Your task to perform on an android device: check google app version Image 0: 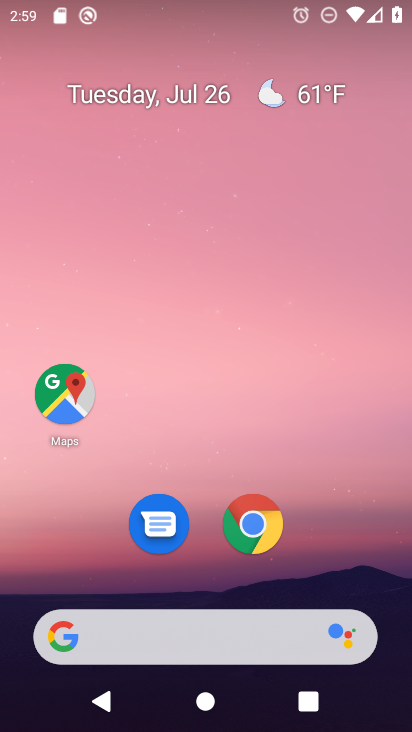
Step 0: press home button
Your task to perform on an android device: check google app version Image 1: 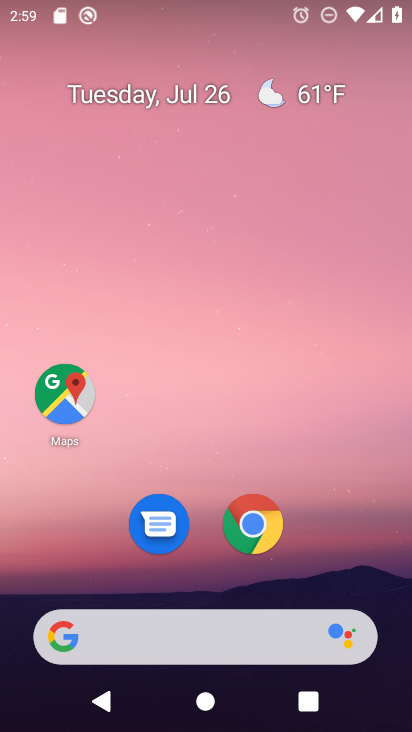
Step 1: drag from (205, 623) to (351, 113)
Your task to perform on an android device: check google app version Image 2: 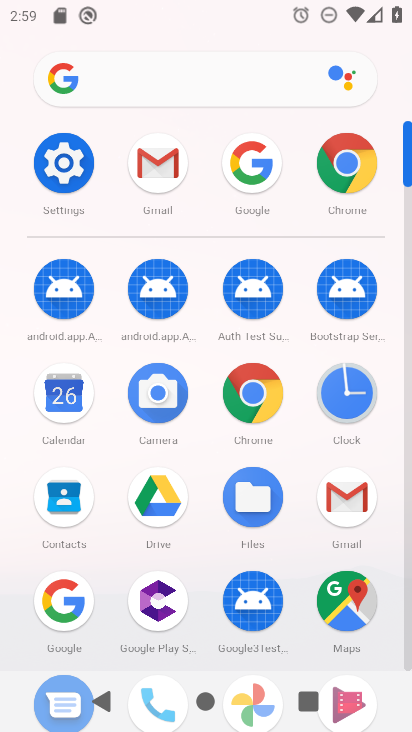
Step 2: drag from (68, 599) to (239, 381)
Your task to perform on an android device: check google app version Image 3: 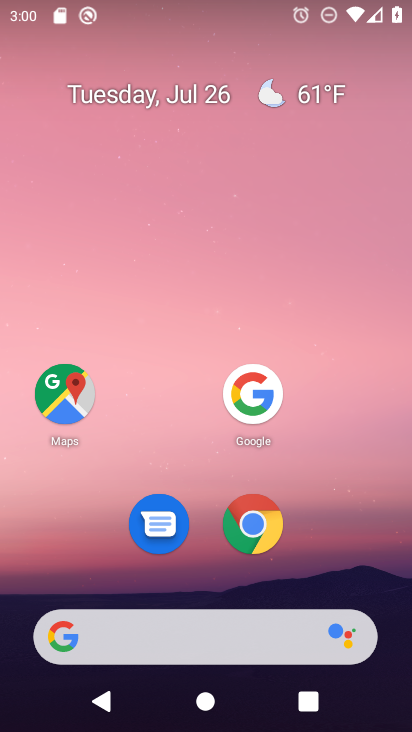
Step 3: drag from (259, 390) to (241, 348)
Your task to perform on an android device: check google app version Image 4: 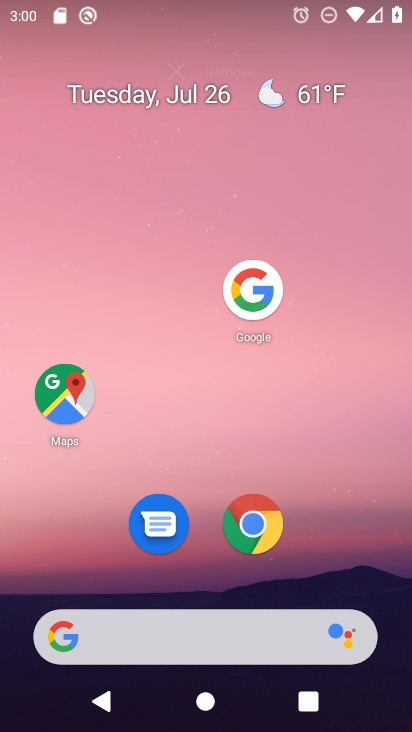
Step 4: click (190, 181)
Your task to perform on an android device: check google app version Image 5: 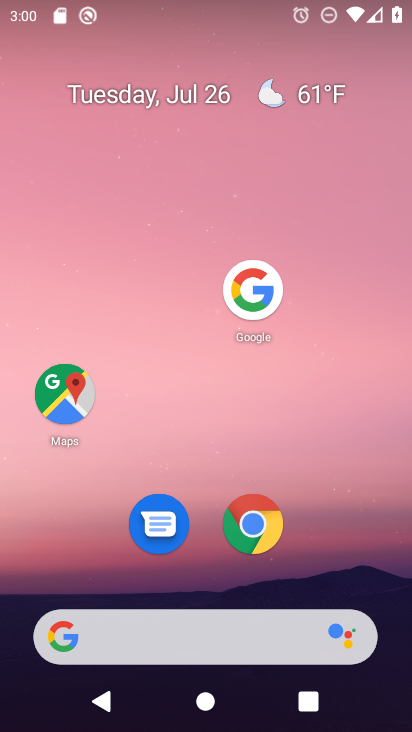
Step 5: click (256, 289)
Your task to perform on an android device: check google app version Image 6: 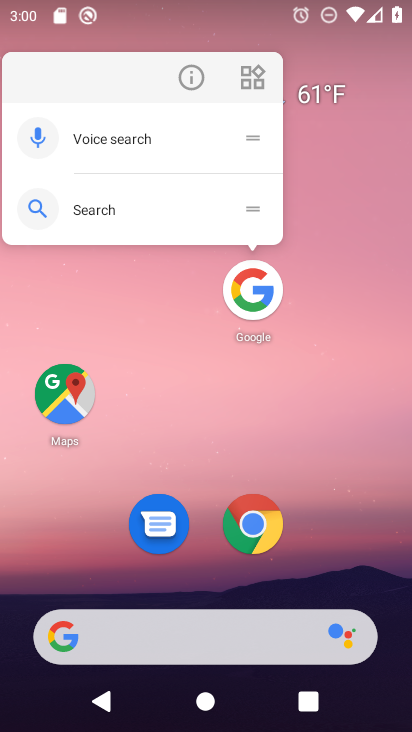
Step 6: click (193, 83)
Your task to perform on an android device: check google app version Image 7: 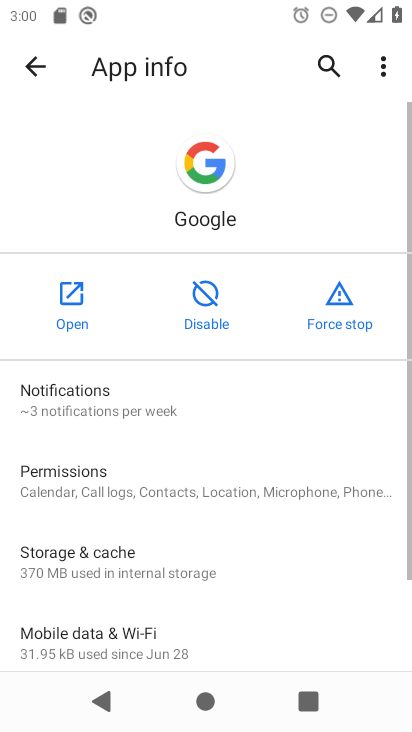
Step 7: drag from (236, 647) to (316, 101)
Your task to perform on an android device: check google app version Image 8: 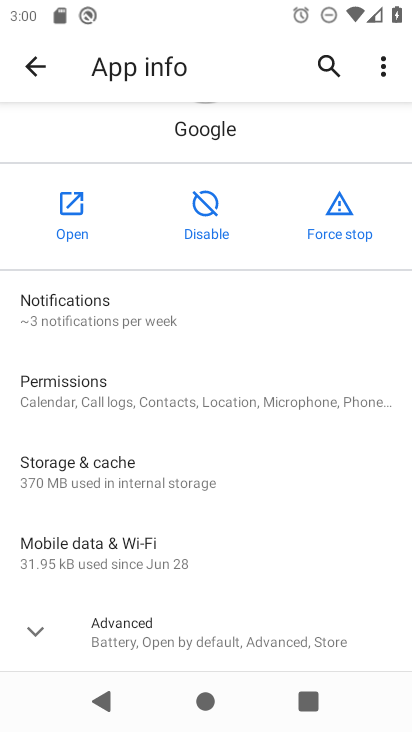
Step 8: click (140, 614)
Your task to perform on an android device: check google app version Image 9: 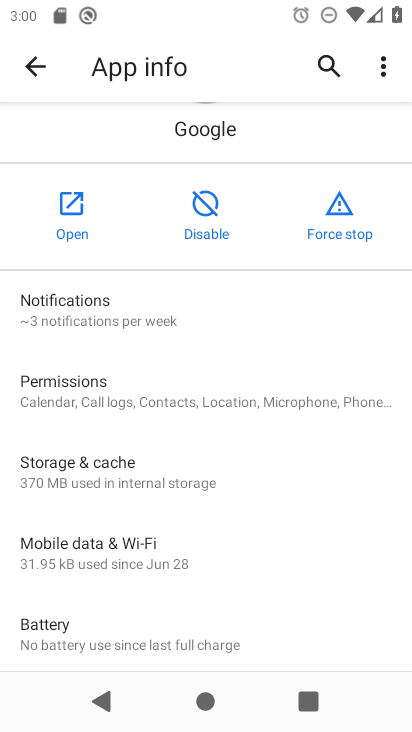
Step 9: task complete